Your task to perform on an android device: toggle translation in the chrome app Image 0: 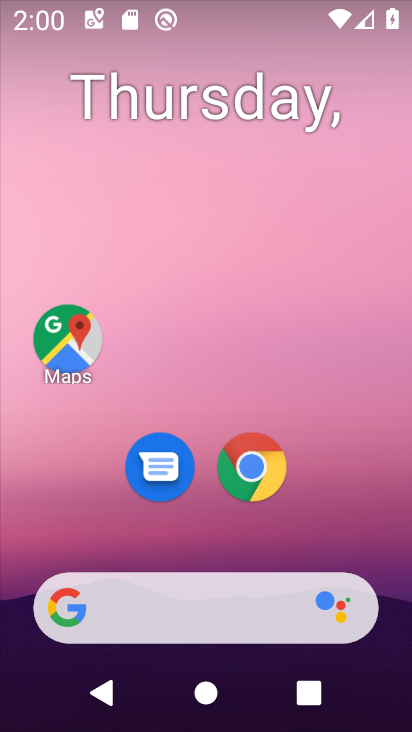
Step 0: click (259, 478)
Your task to perform on an android device: toggle translation in the chrome app Image 1: 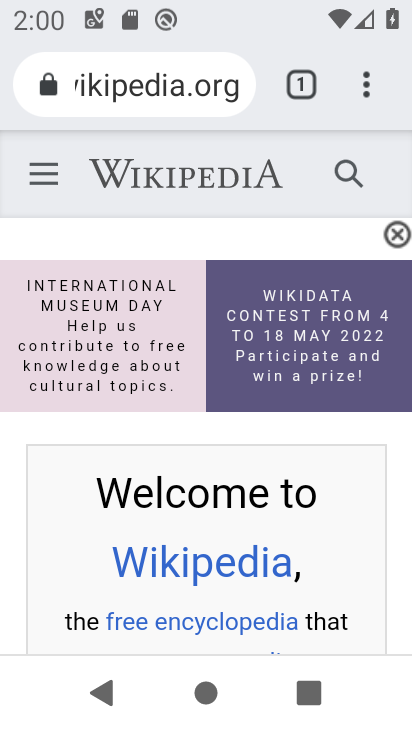
Step 1: click (356, 86)
Your task to perform on an android device: toggle translation in the chrome app Image 2: 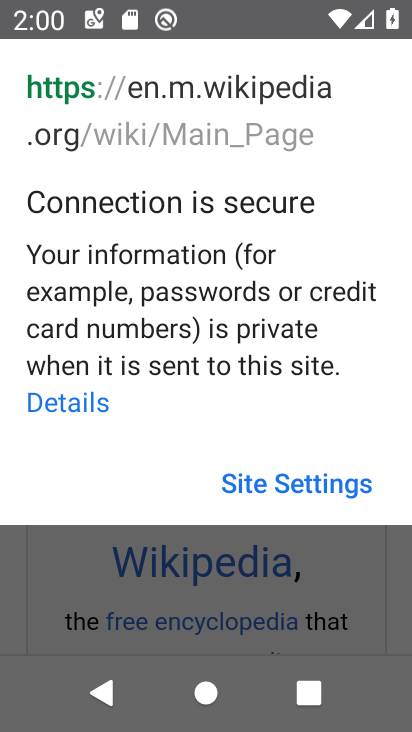
Step 2: click (335, 572)
Your task to perform on an android device: toggle translation in the chrome app Image 3: 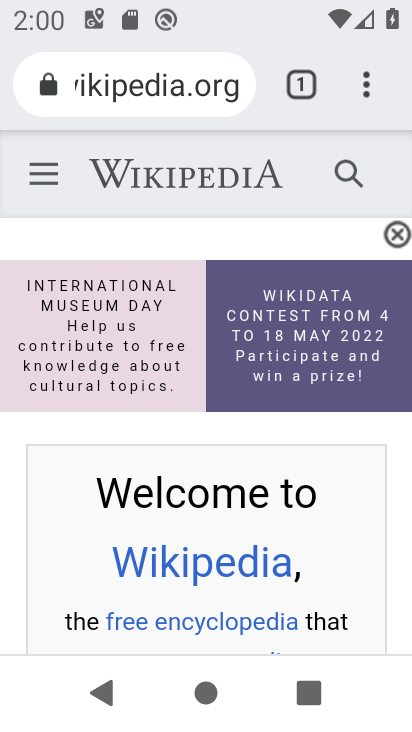
Step 3: drag from (370, 91) to (92, 525)
Your task to perform on an android device: toggle translation in the chrome app Image 4: 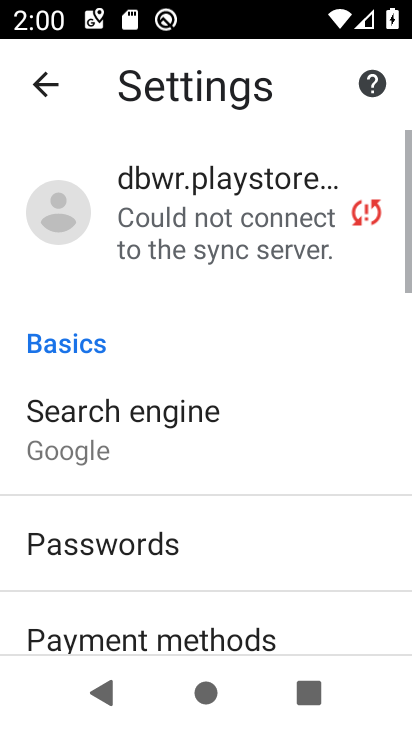
Step 4: drag from (109, 596) to (80, 64)
Your task to perform on an android device: toggle translation in the chrome app Image 5: 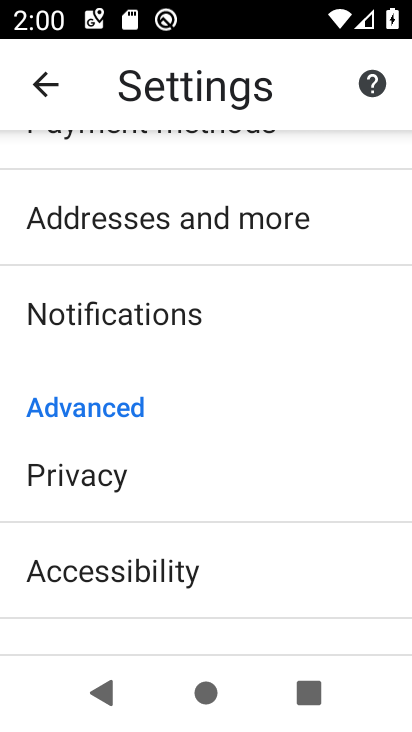
Step 5: drag from (151, 546) to (134, 93)
Your task to perform on an android device: toggle translation in the chrome app Image 6: 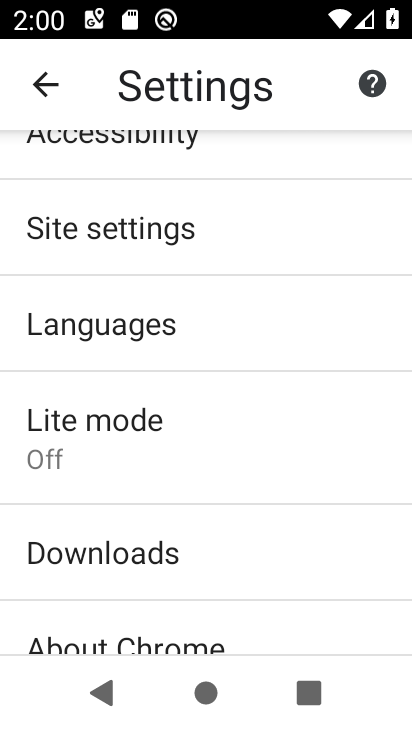
Step 6: click (128, 323)
Your task to perform on an android device: toggle translation in the chrome app Image 7: 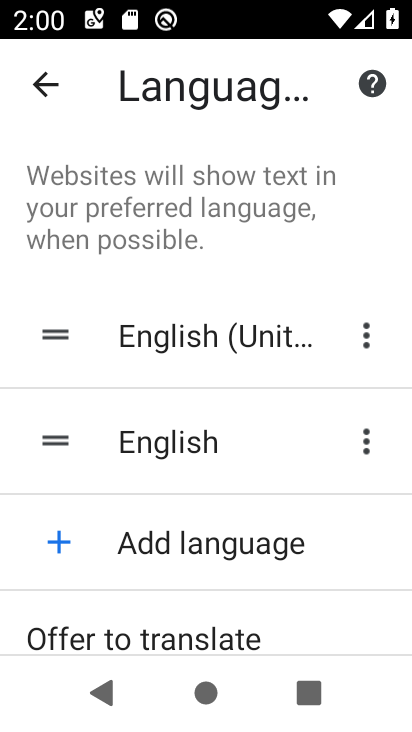
Step 7: drag from (169, 596) to (153, 408)
Your task to perform on an android device: toggle translation in the chrome app Image 8: 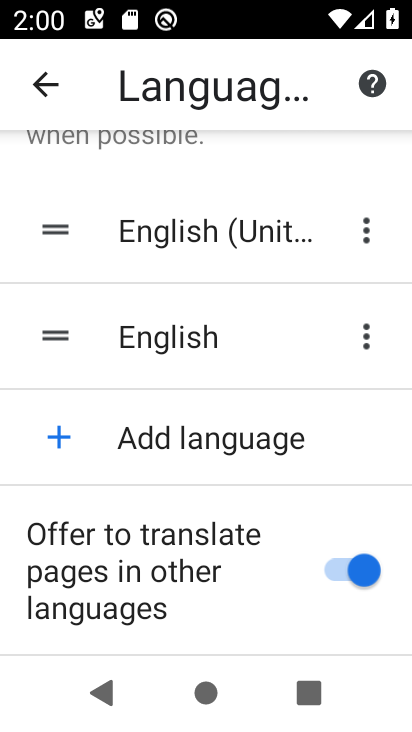
Step 8: click (359, 580)
Your task to perform on an android device: toggle translation in the chrome app Image 9: 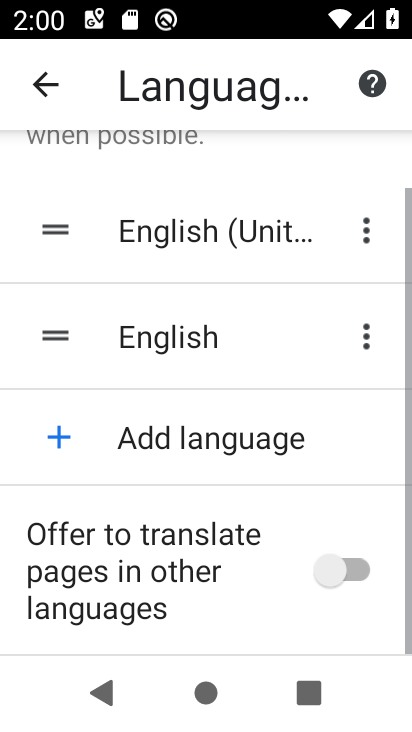
Step 9: task complete